Your task to perform on an android device: read, delete, or share a saved page in the chrome app Image 0: 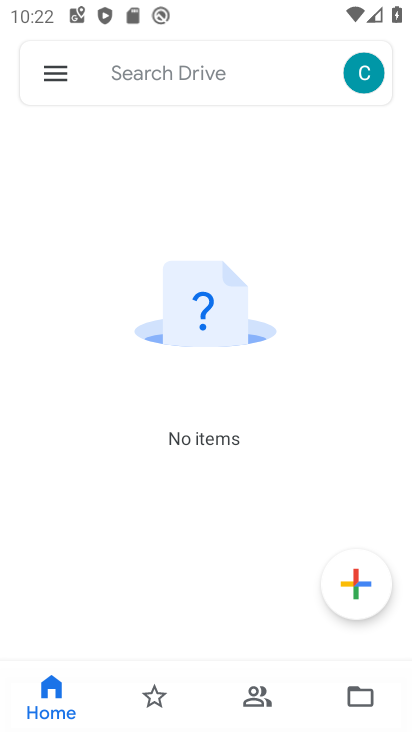
Step 0: press home button
Your task to perform on an android device: read, delete, or share a saved page in the chrome app Image 1: 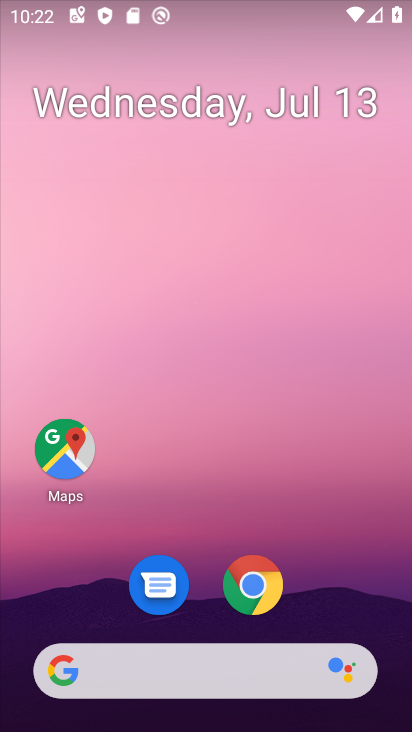
Step 1: drag from (331, 562) to (283, 118)
Your task to perform on an android device: read, delete, or share a saved page in the chrome app Image 2: 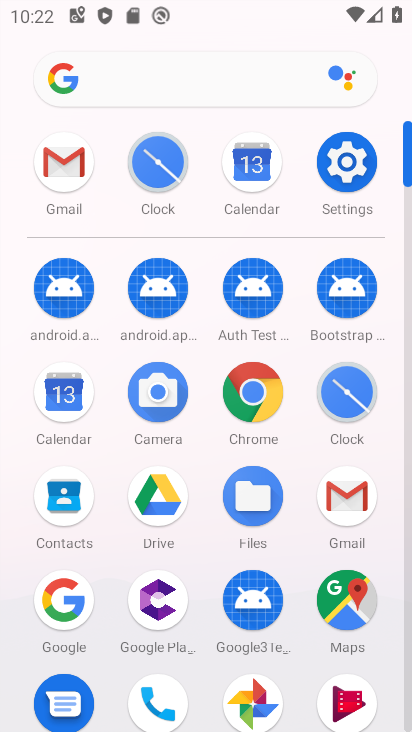
Step 2: click (256, 389)
Your task to perform on an android device: read, delete, or share a saved page in the chrome app Image 3: 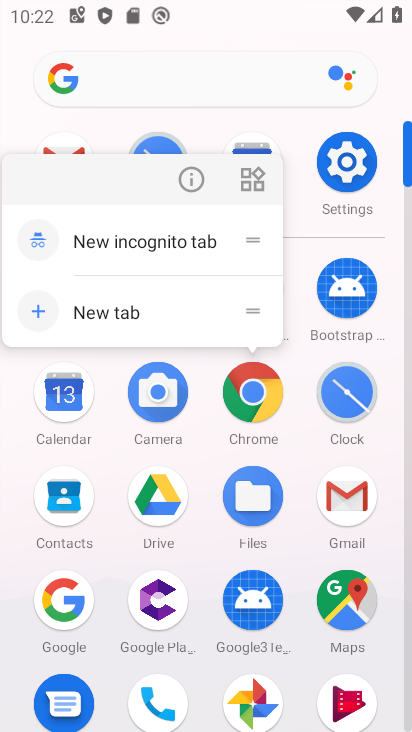
Step 3: click (256, 389)
Your task to perform on an android device: read, delete, or share a saved page in the chrome app Image 4: 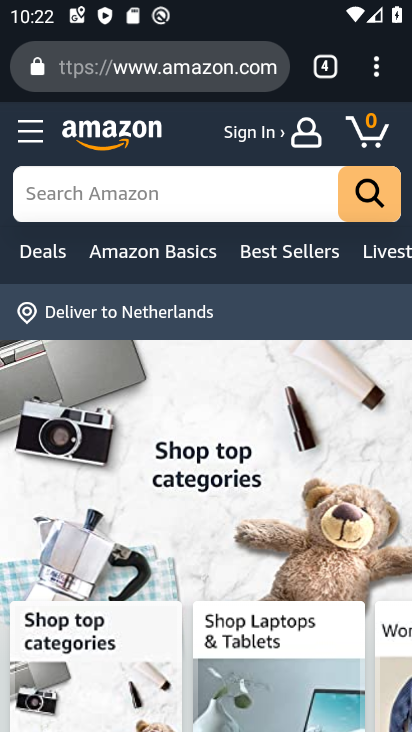
Step 4: click (375, 67)
Your task to perform on an android device: read, delete, or share a saved page in the chrome app Image 5: 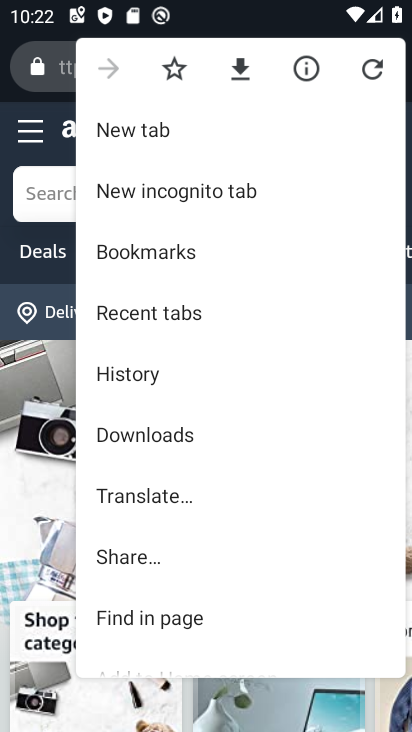
Step 5: click (181, 429)
Your task to perform on an android device: read, delete, or share a saved page in the chrome app Image 6: 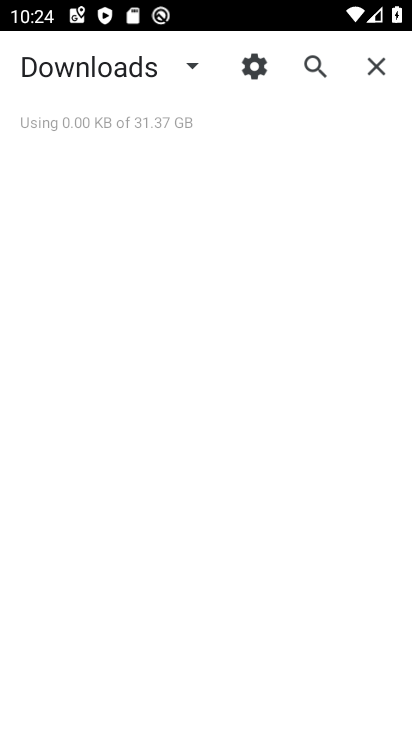
Step 6: task complete